Your task to perform on an android device: Open settings on Google Maps Image 0: 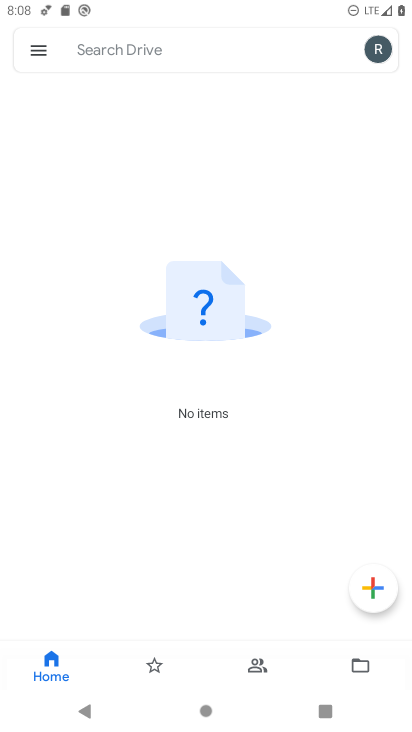
Step 0: press home button
Your task to perform on an android device: Open settings on Google Maps Image 1: 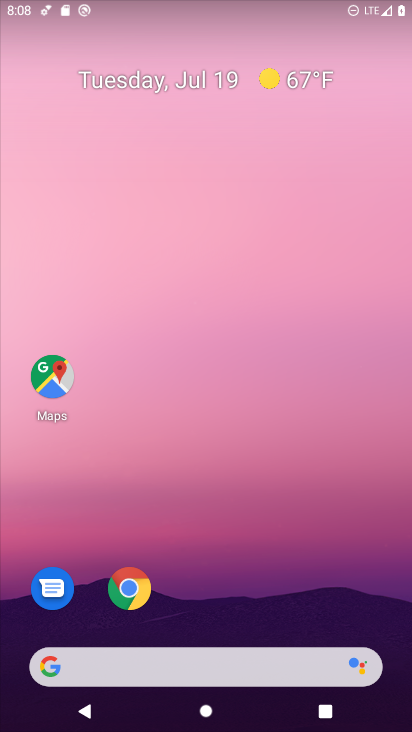
Step 1: drag from (343, 601) to (396, 107)
Your task to perform on an android device: Open settings on Google Maps Image 2: 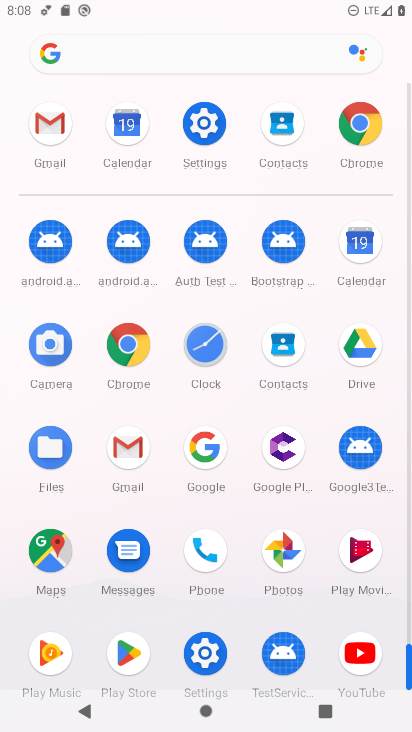
Step 2: click (51, 561)
Your task to perform on an android device: Open settings on Google Maps Image 3: 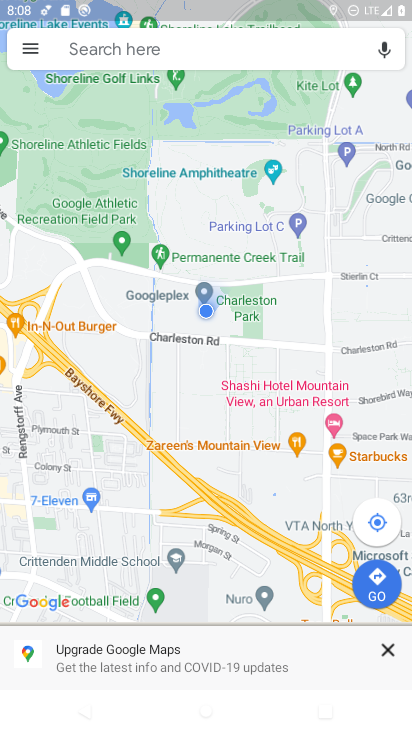
Step 3: click (31, 48)
Your task to perform on an android device: Open settings on Google Maps Image 4: 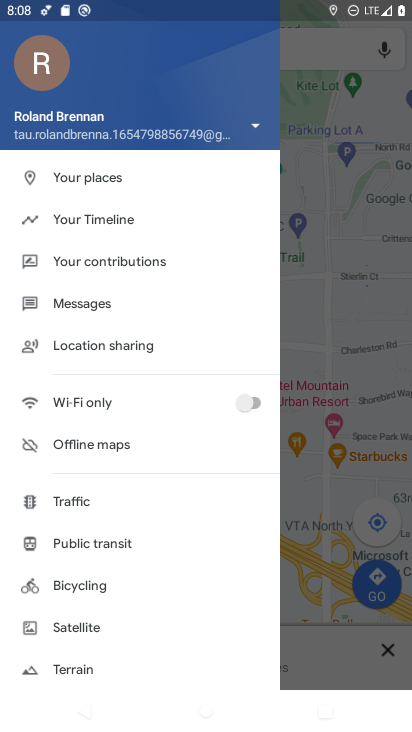
Step 4: drag from (188, 563) to (191, 498)
Your task to perform on an android device: Open settings on Google Maps Image 5: 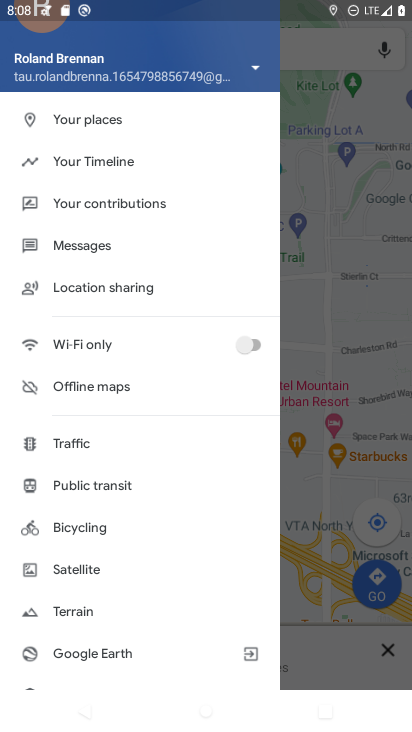
Step 5: drag from (185, 582) to (185, 452)
Your task to perform on an android device: Open settings on Google Maps Image 6: 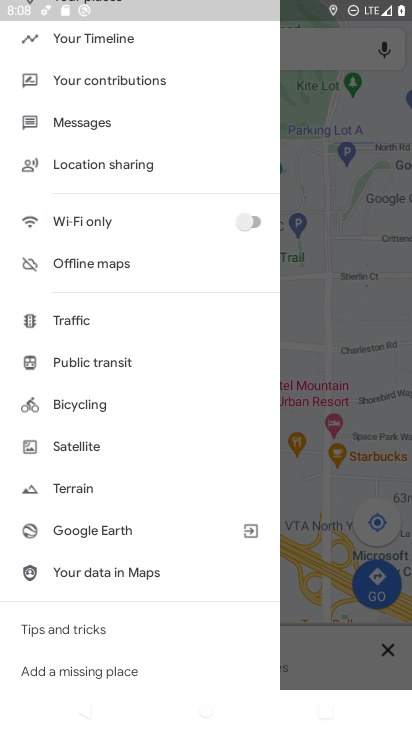
Step 6: drag from (185, 601) to (185, 498)
Your task to perform on an android device: Open settings on Google Maps Image 7: 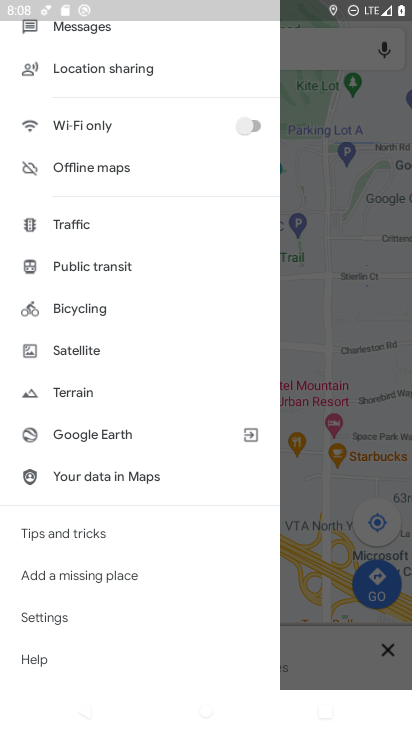
Step 7: click (94, 624)
Your task to perform on an android device: Open settings on Google Maps Image 8: 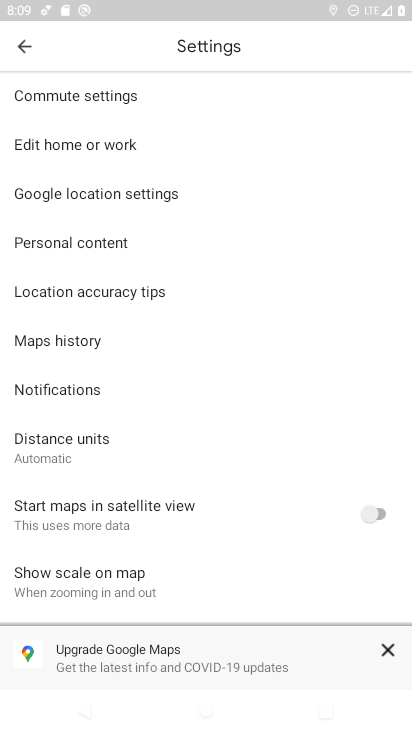
Step 8: task complete